Your task to perform on an android device: Open the Play Movies app and select the watchlist tab. Image 0: 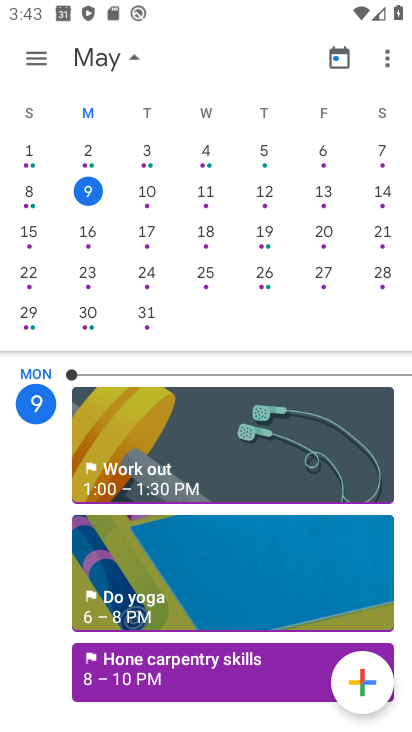
Step 0: press home button
Your task to perform on an android device: Open the Play Movies app and select the watchlist tab. Image 1: 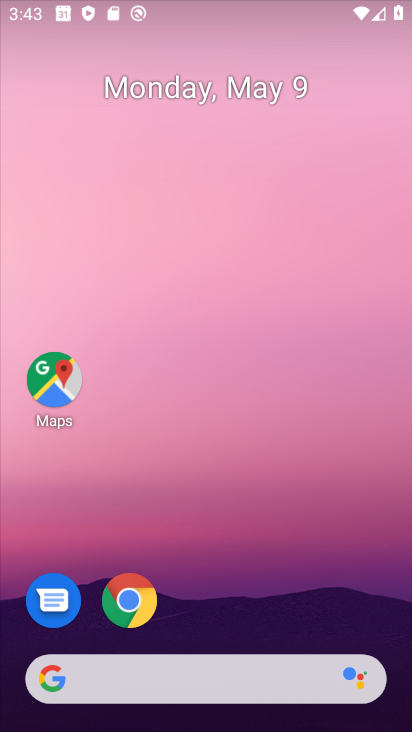
Step 1: drag from (277, 635) to (259, 5)
Your task to perform on an android device: Open the Play Movies app and select the watchlist tab. Image 2: 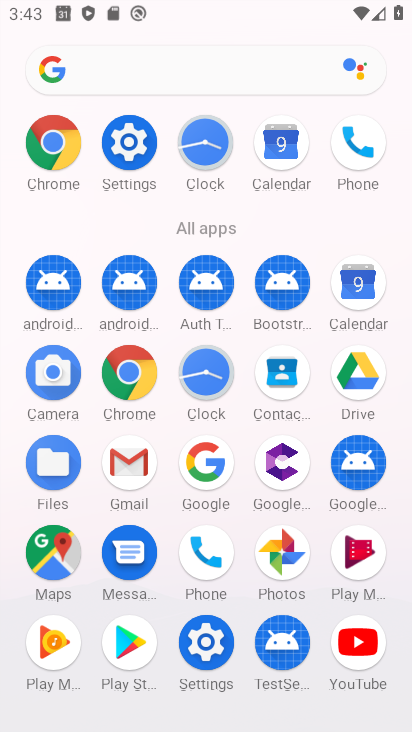
Step 2: click (351, 568)
Your task to perform on an android device: Open the Play Movies app and select the watchlist tab. Image 3: 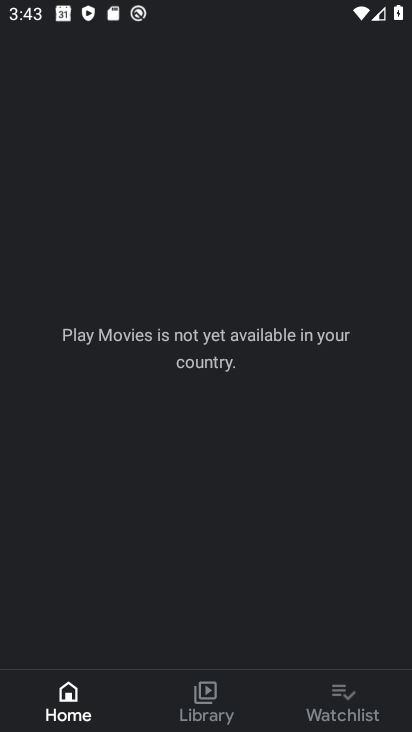
Step 3: click (331, 696)
Your task to perform on an android device: Open the Play Movies app and select the watchlist tab. Image 4: 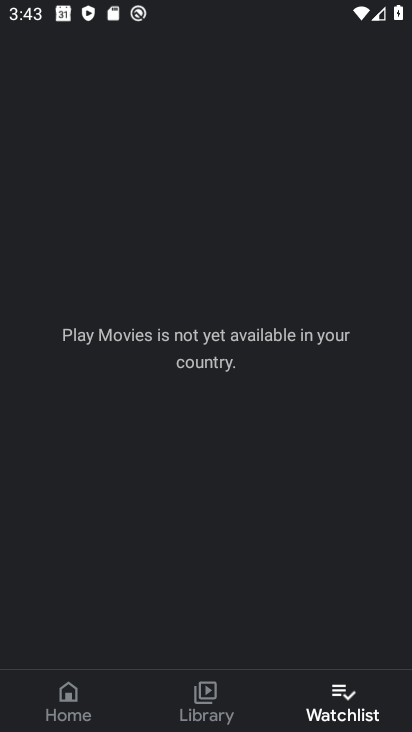
Step 4: task complete